Your task to perform on an android device: open wifi settings Image 0: 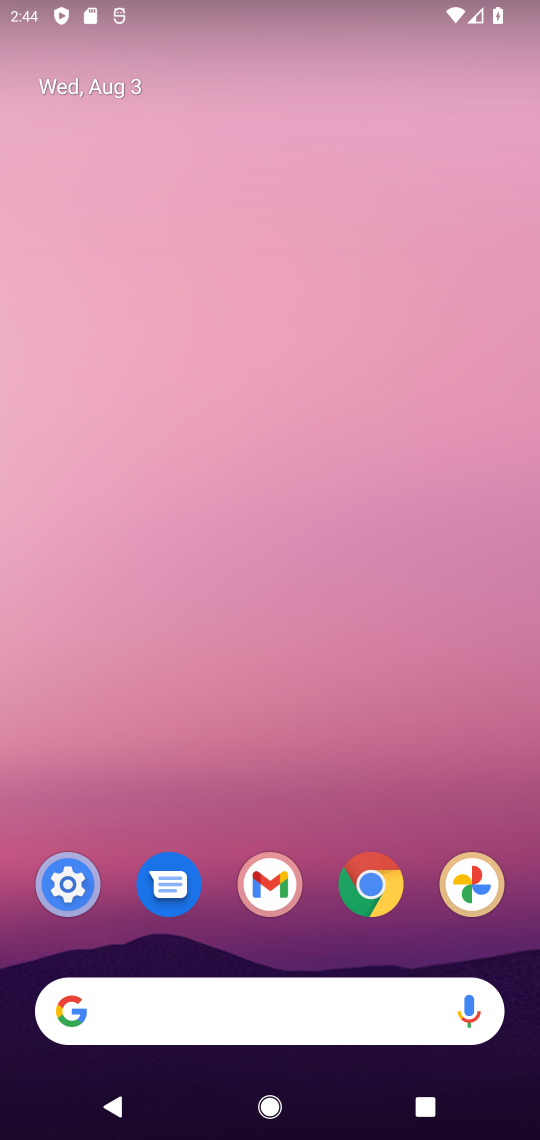
Step 0: click (56, 875)
Your task to perform on an android device: open wifi settings Image 1: 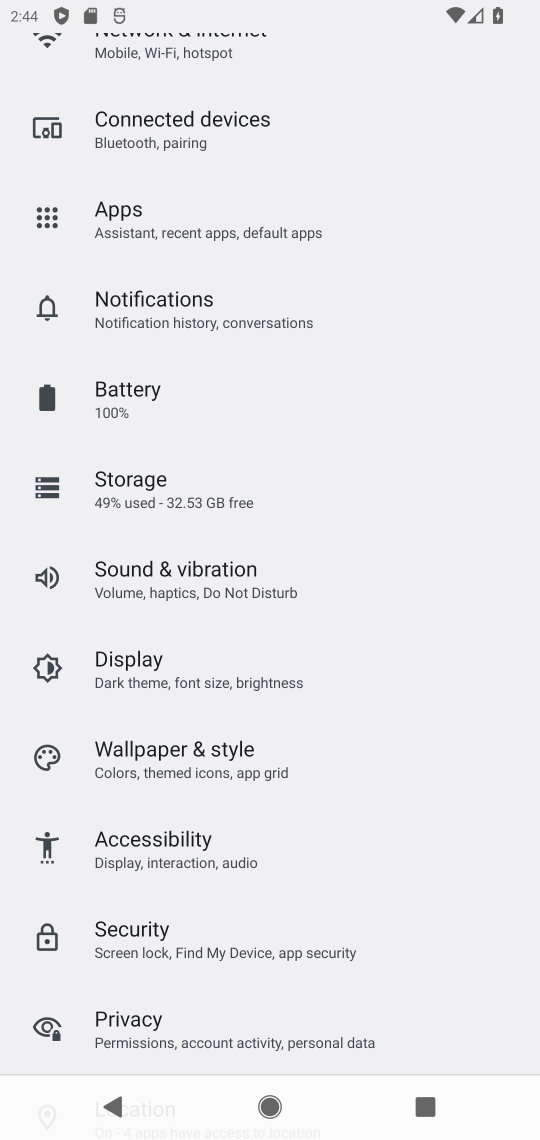
Step 1: click (230, 53)
Your task to perform on an android device: open wifi settings Image 2: 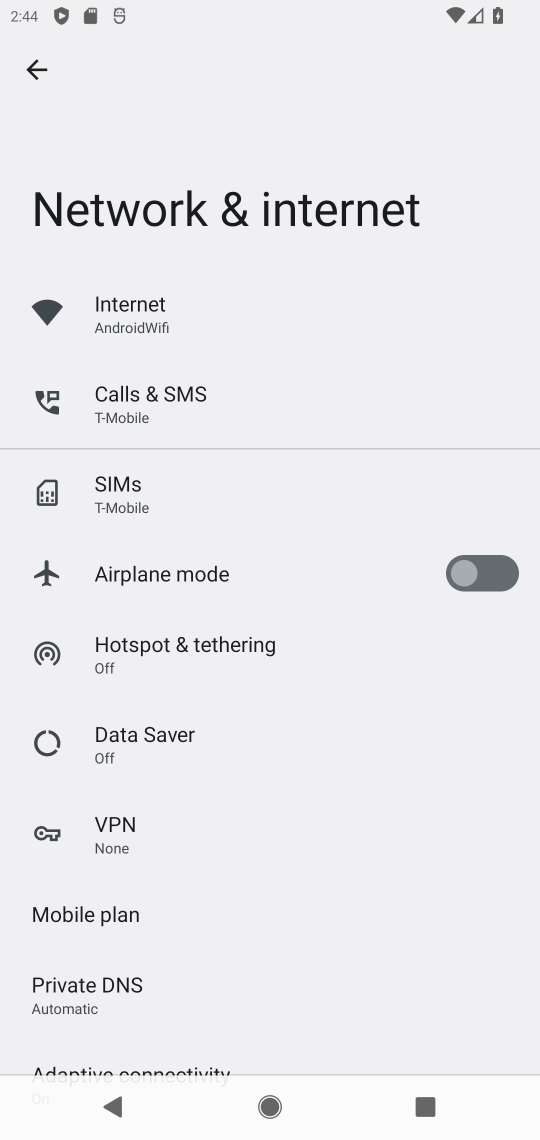
Step 2: click (246, 316)
Your task to perform on an android device: open wifi settings Image 3: 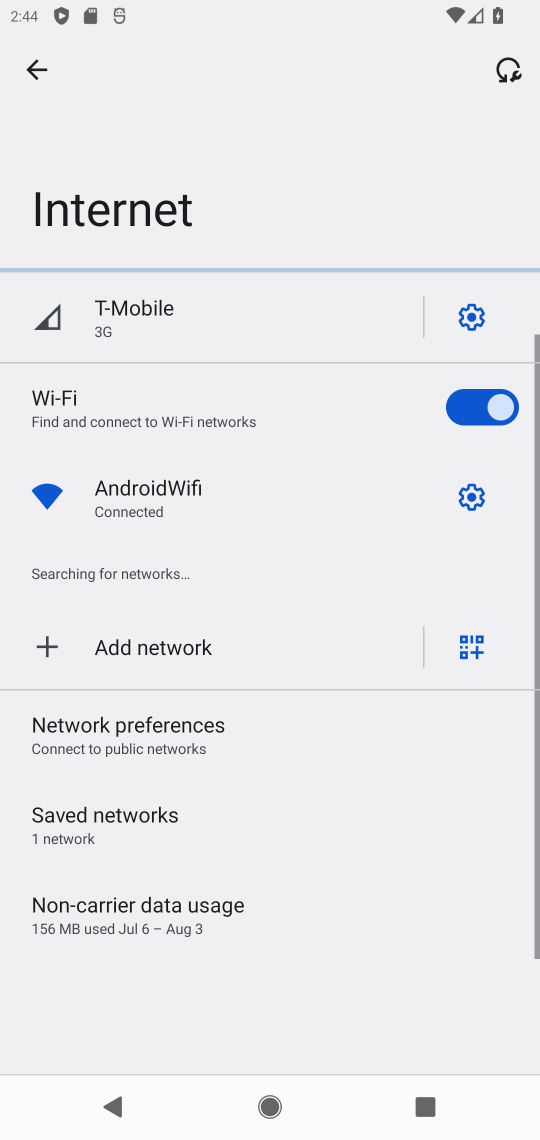
Step 3: task complete